Your task to perform on an android device: open a new tab in the chrome app Image 0: 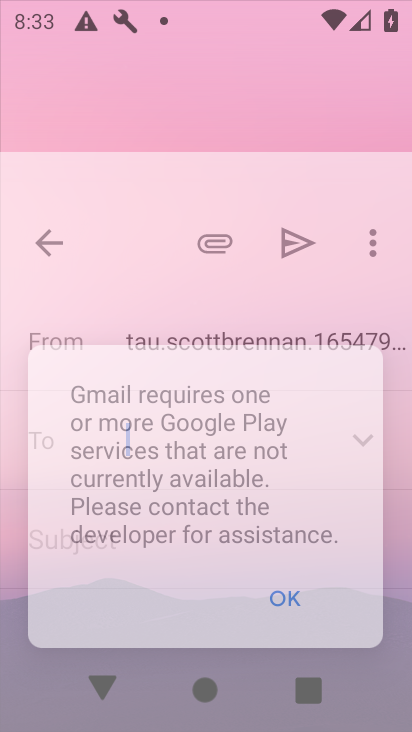
Step 0: click (51, 154)
Your task to perform on an android device: open a new tab in the chrome app Image 1: 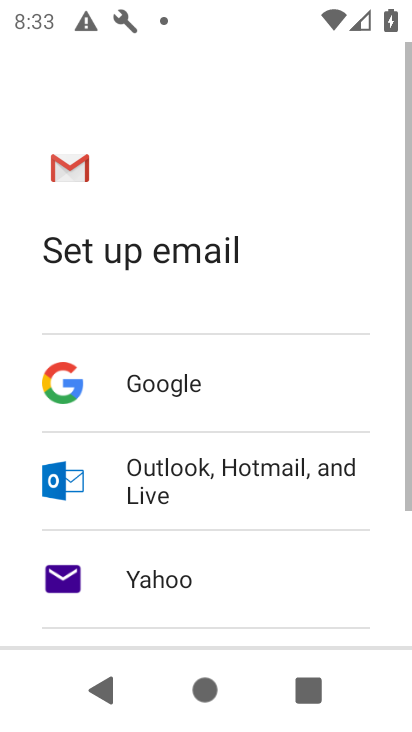
Step 1: press back button
Your task to perform on an android device: open a new tab in the chrome app Image 2: 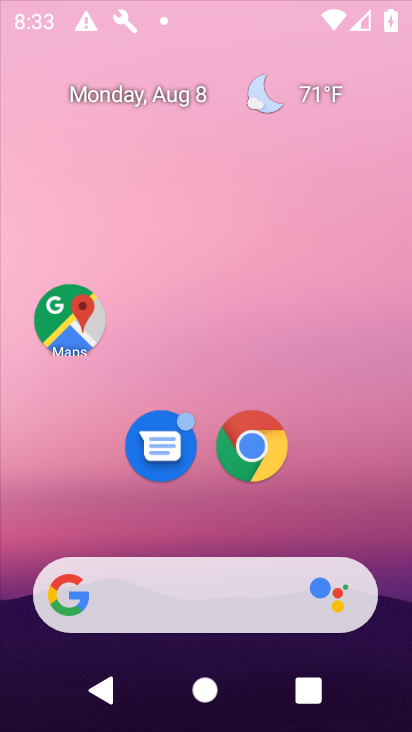
Step 2: press back button
Your task to perform on an android device: open a new tab in the chrome app Image 3: 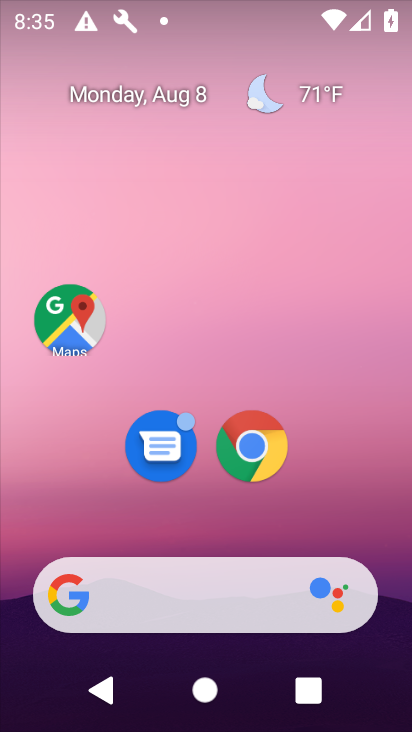
Step 3: drag from (195, 538) to (212, 211)
Your task to perform on an android device: open a new tab in the chrome app Image 4: 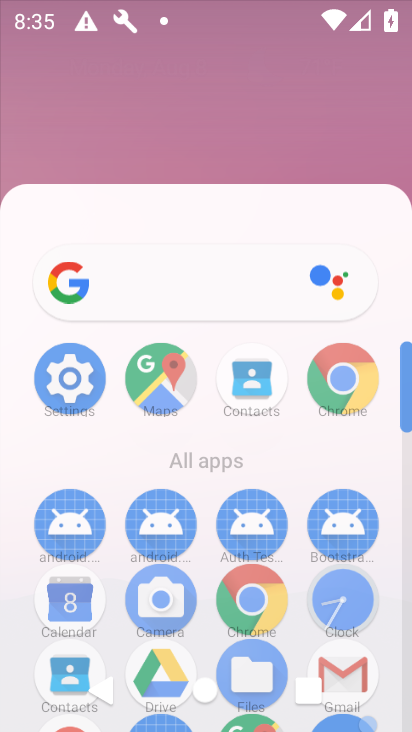
Step 4: drag from (193, 505) to (184, 270)
Your task to perform on an android device: open a new tab in the chrome app Image 5: 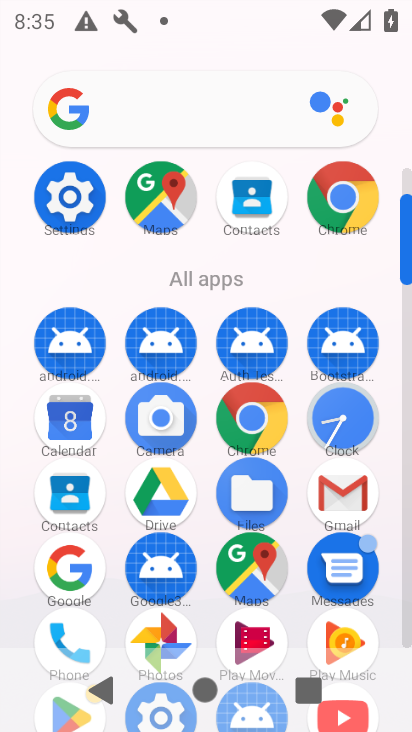
Step 5: click (336, 199)
Your task to perform on an android device: open a new tab in the chrome app Image 6: 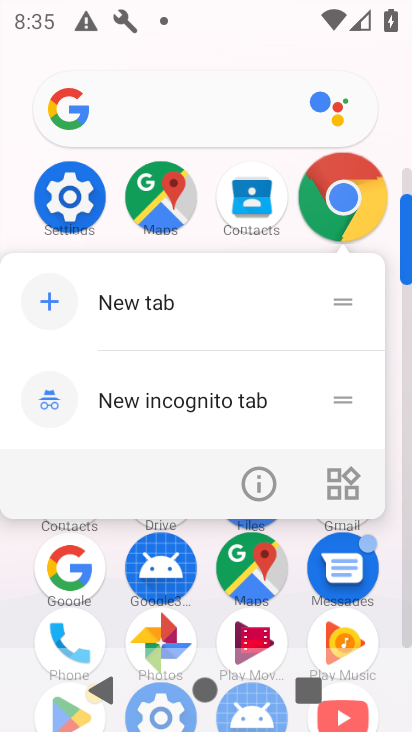
Step 6: click (336, 199)
Your task to perform on an android device: open a new tab in the chrome app Image 7: 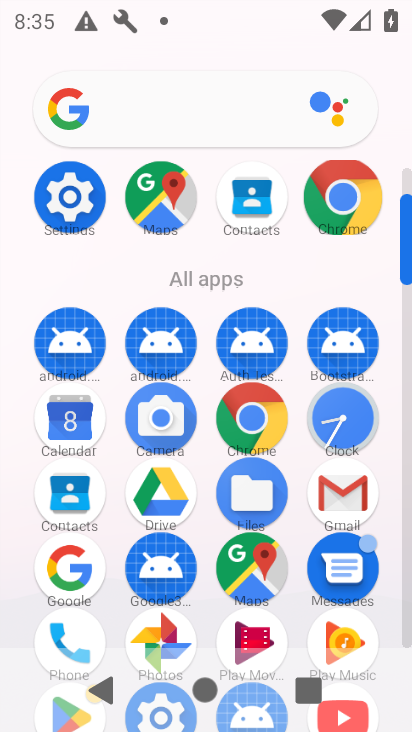
Step 7: click (148, 306)
Your task to perform on an android device: open a new tab in the chrome app Image 8: 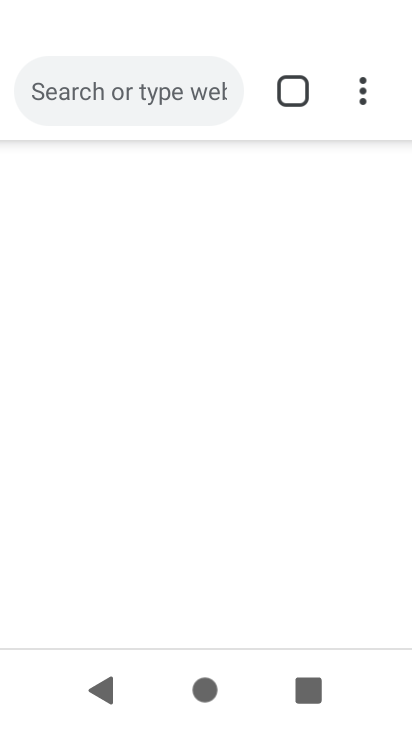
Step 8: click (148, 308)
Your task to perform on an android device: open a new tab in the chrome app Image 9: 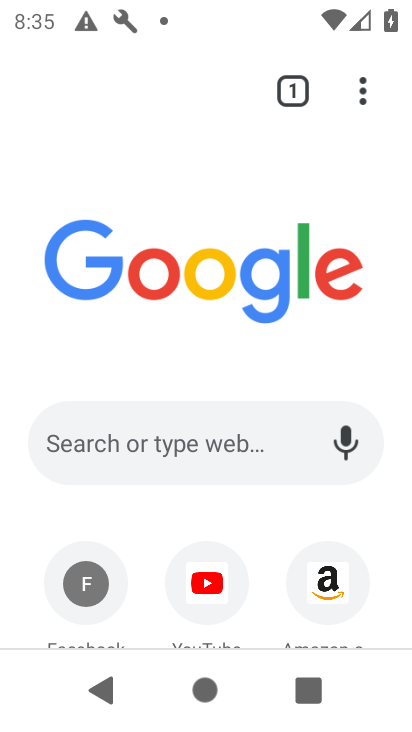
Step 9: task complete